Your task to perform on an android device: refresh tabs in the chrome app Image 0: 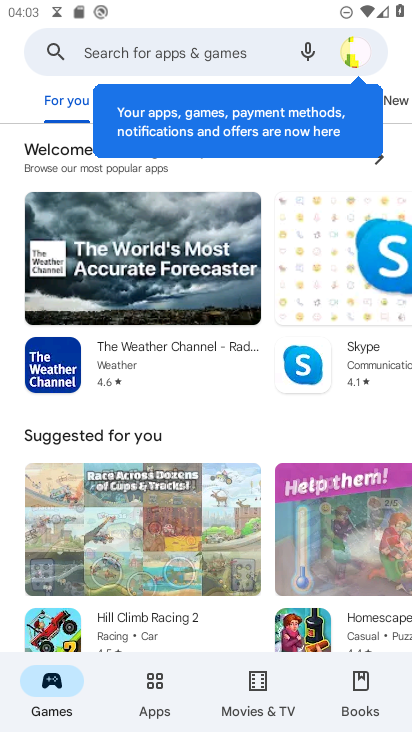
Step 0: press back button
Your task to perform on an android device: refresh tabs in the chrome app Image 1: 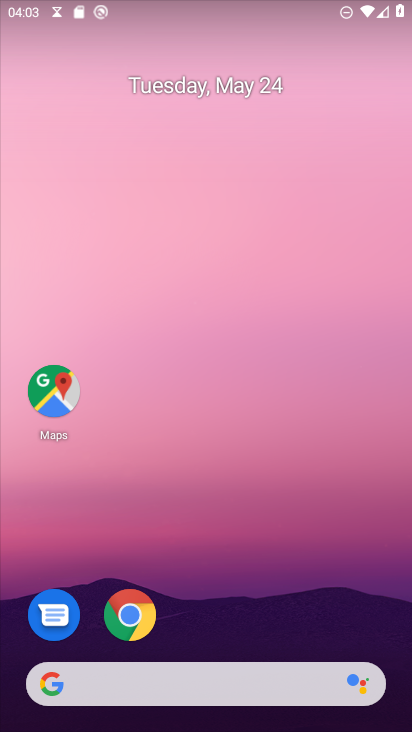
Step 1: drag from (225, 585) to (293, 6)
Your task to perform on an android device: refresh tabs in the chrome app Image 2: 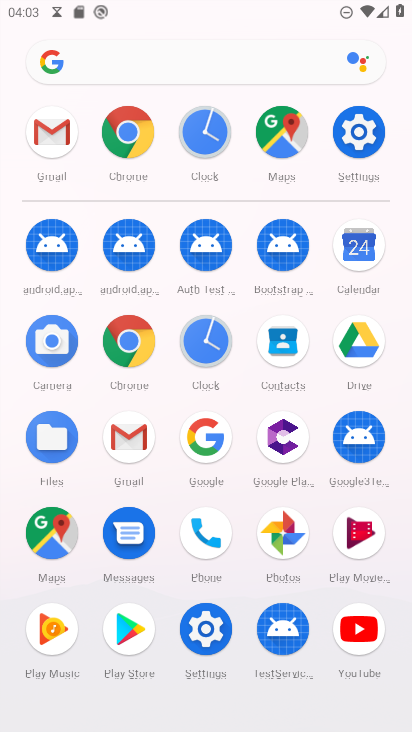
Step 2: click (129, 340)
Your task to perform on an android device: refresh tabs in the chrome app Image 3: 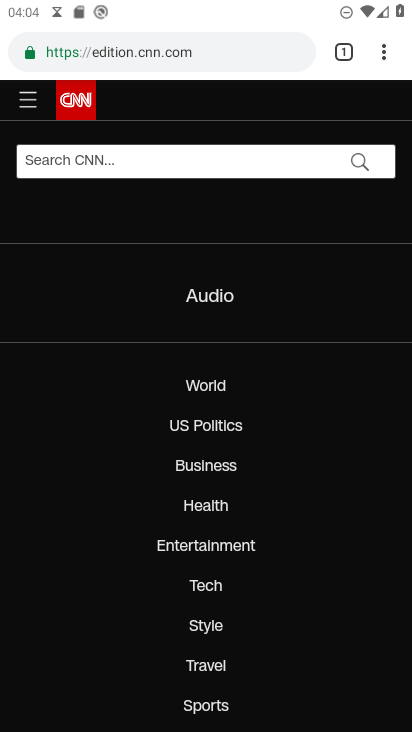
Step 3: click (384, 51)
Your task to perform on an android device: refresh tabs in the chrome app Image 4: 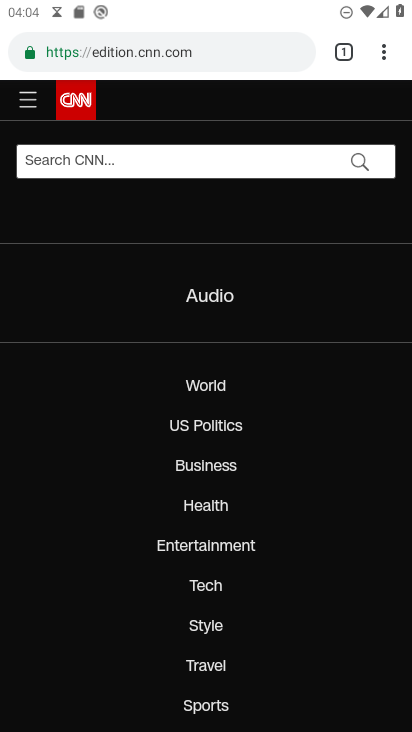
Step 4: task complete